Your task to perform on an android device: Open settings Image 0: 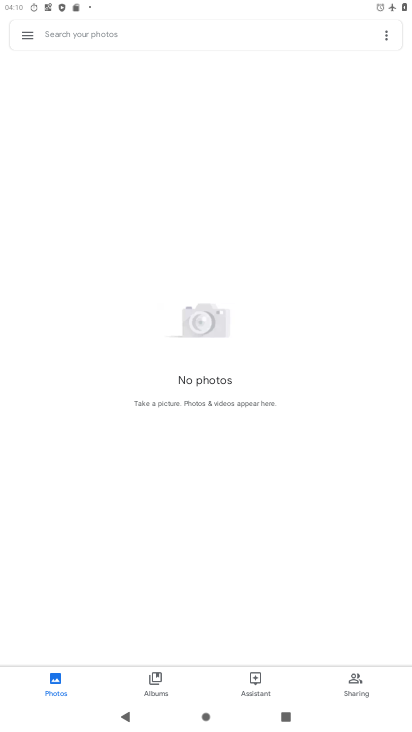
Step 0: press home button
Your task to perform on an android device: Open settings Image 1: 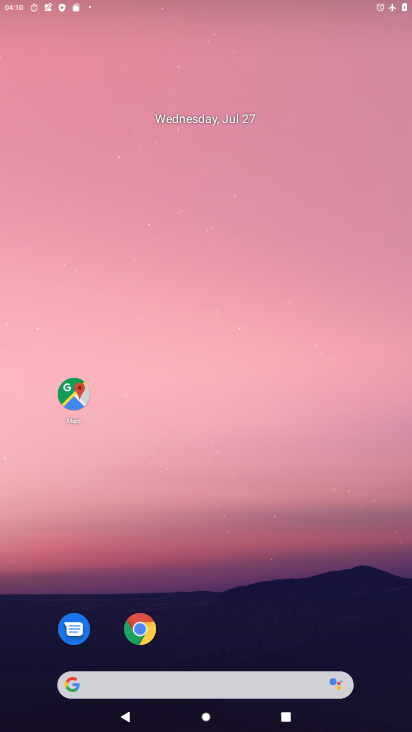
Step 1: drag from (301, 551) to (284, 5)
Your task to perform on an android device: Open settings Image 2: 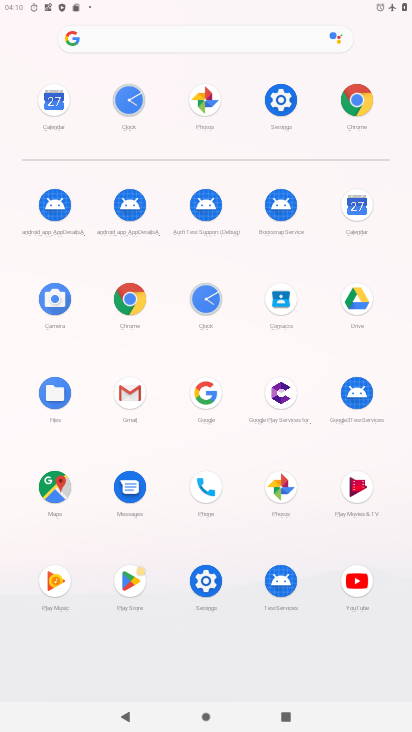
Step 2: click (284, 111)
Your task to perform on an android device: Open settings Image 3: 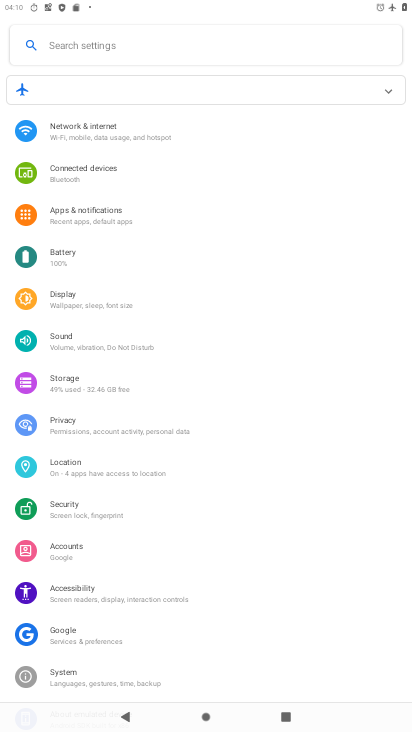
Step 3: task complete